Your task to perform on an android device: open app "Indeed Job Search" Image 0: 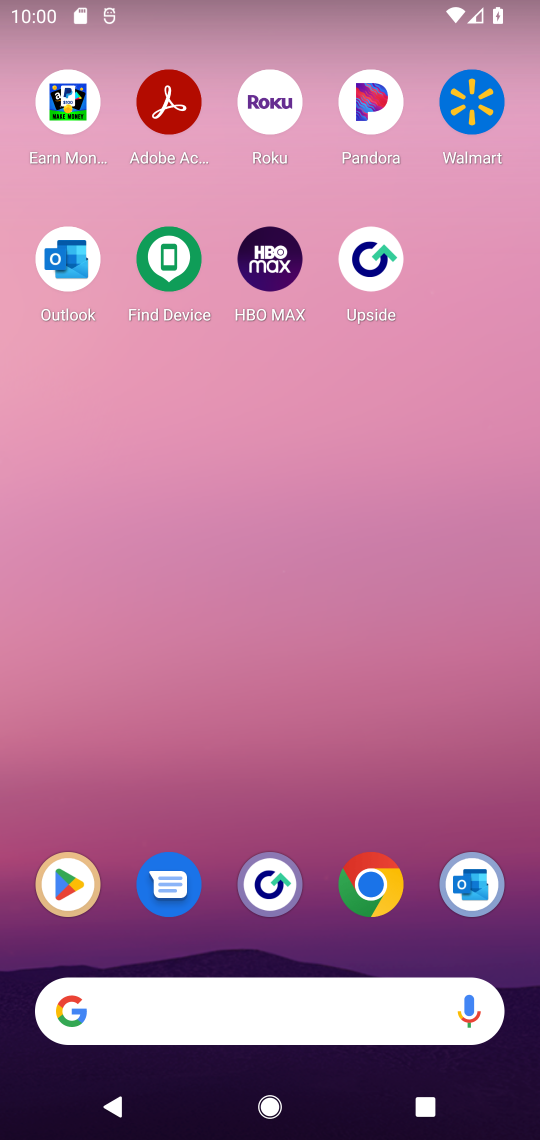
Step 0: click (63, 891)
Your task to perform on an android device: open app "Indeed Job Search" Image 1: 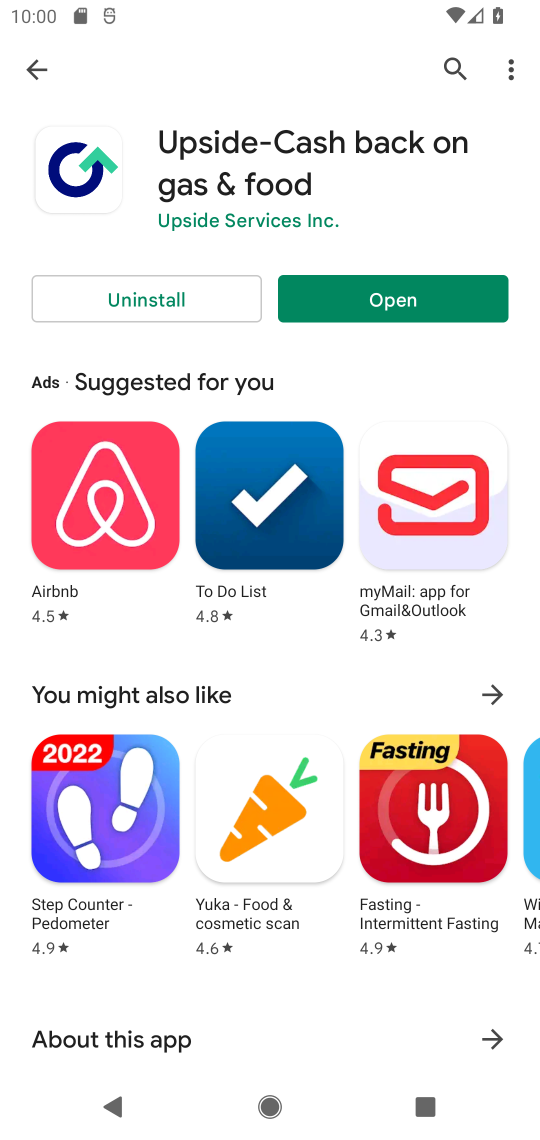
Step 1: click (34, 72)
Your task to perform on an android device: open app "Indeed Job Search" Image 2: 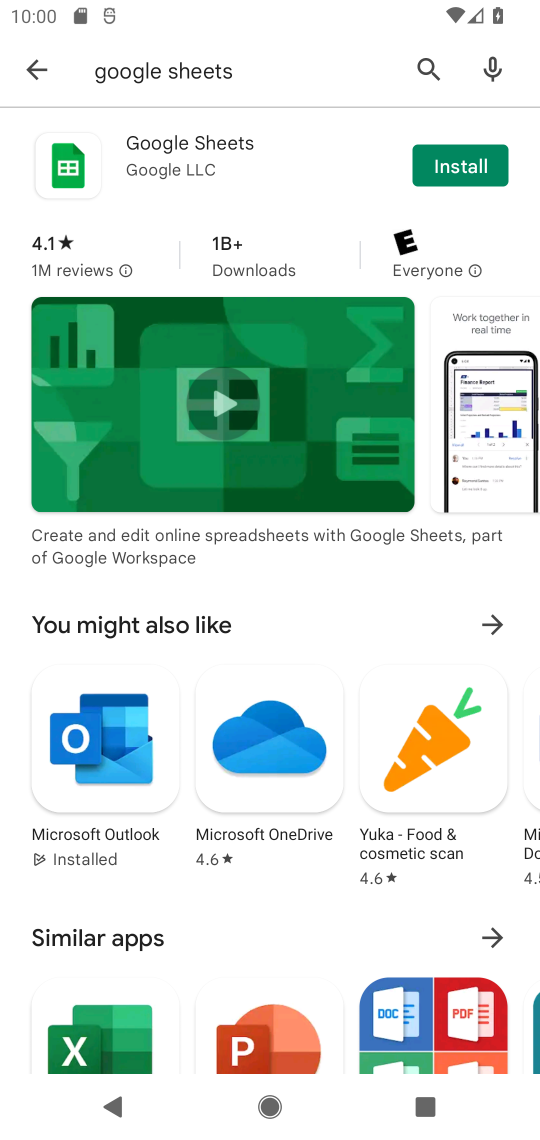
Step 2: click (200, 70)
Your task to perform on an android device: open app "Indeed Job Search" Image 3: 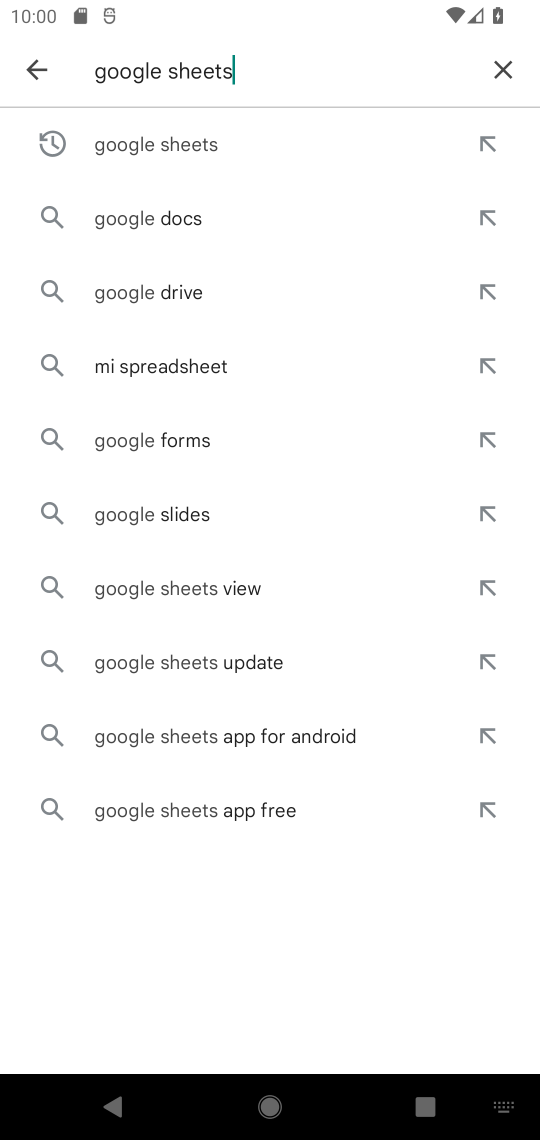
Step 3: click (513, 59)
Your task to perform on an android device: open app "Indeed Job Search" Image 4: 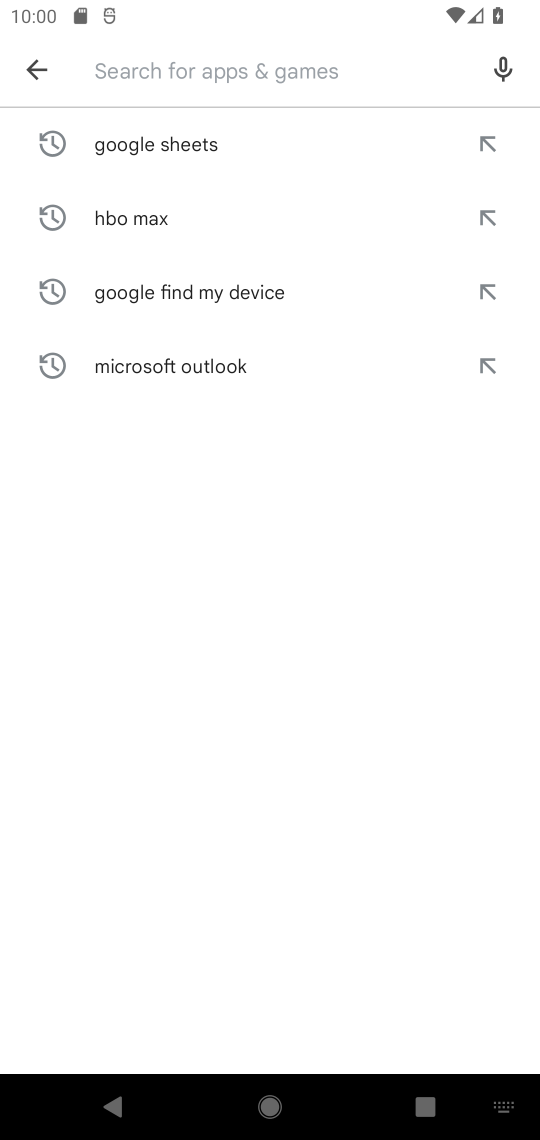
Step 4: type "indeed job search"
Your task to perform on an android device: open app "Indeed Job Search" Image 5: 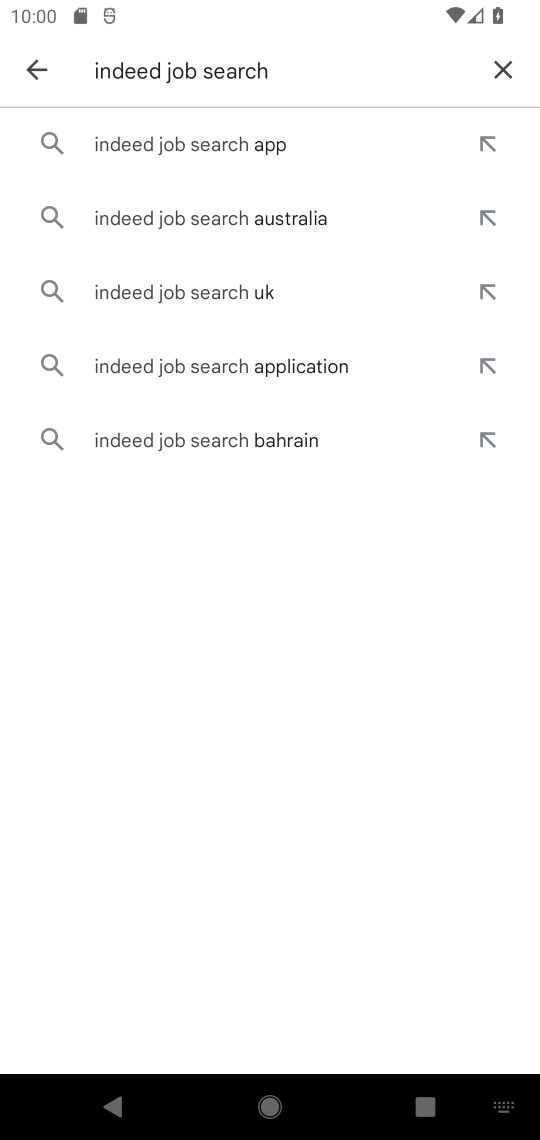
Step 5: click (186, 155)
Your task to perform on an android device: open app "Indeed Job Search" Image 6: 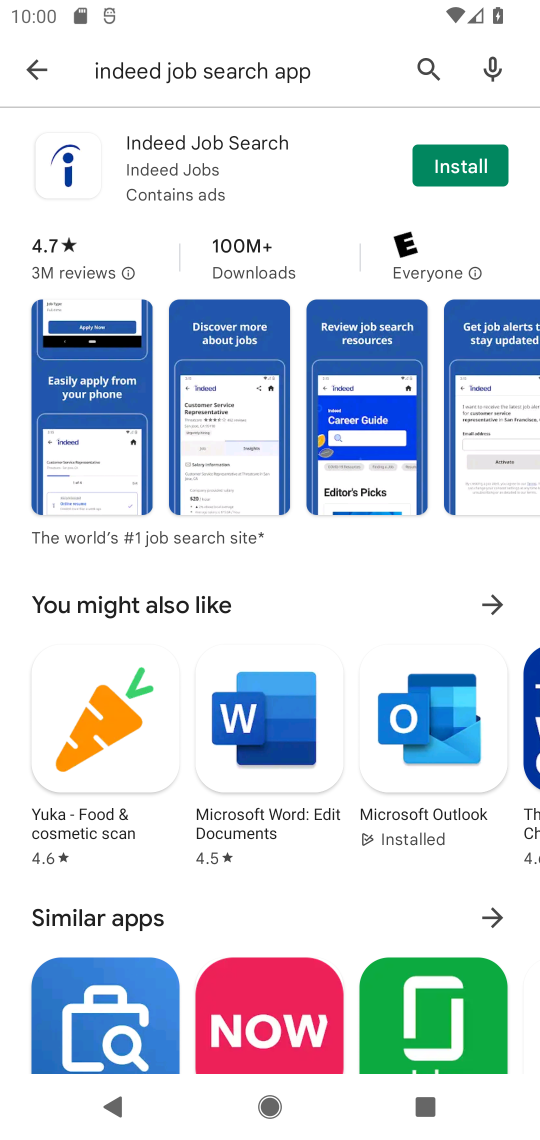
Step 6: task complete